Your task to perform on an android device: Open Google Maps and go to "Timeline" Image 0: 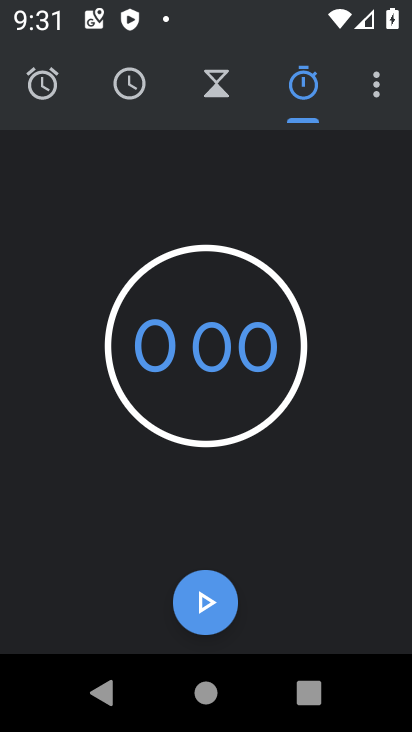
Step 0: press home button
Your task to perform on an android device: Open Google Maps and go to "Timeline" Image 1: 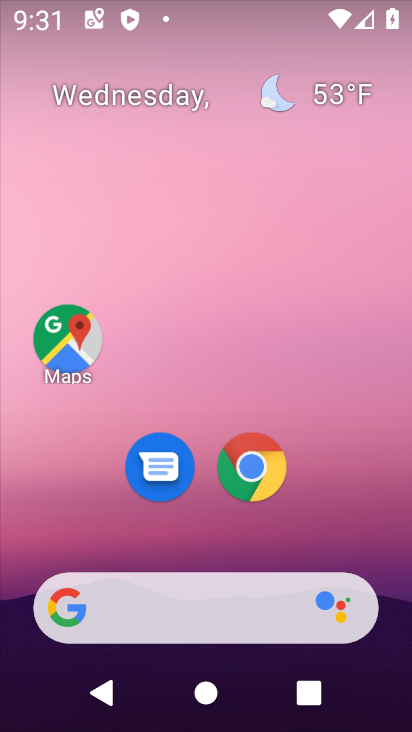
Step 1: click (68, 347)
Your task to perform on an android device: Open Google Maps and go to "Timeline" Image 2: 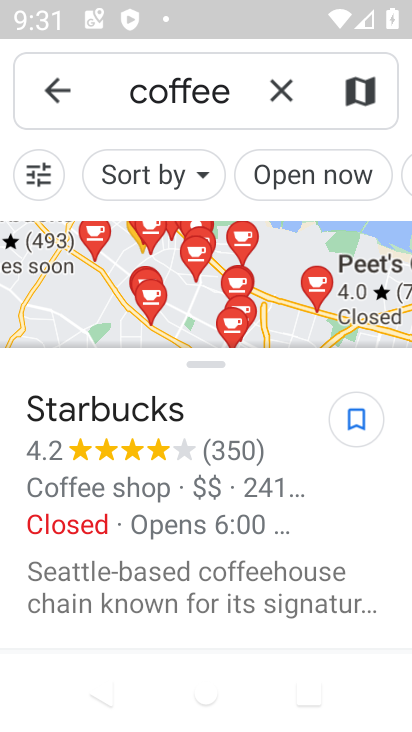
Step 2: click (51, 89)
Your task to perform on an android device: Open Google Maps and go to "Timeline" Image 3: 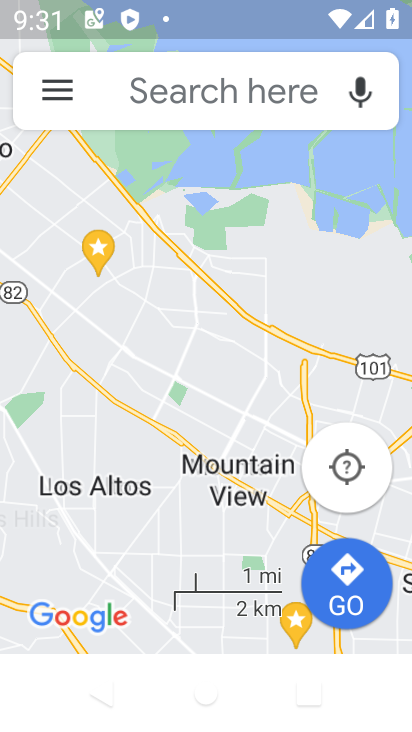
Step 3: click (51, 89)
Your task to perform on an android device: Open Google Maps and go to "Timeline" Image 4: 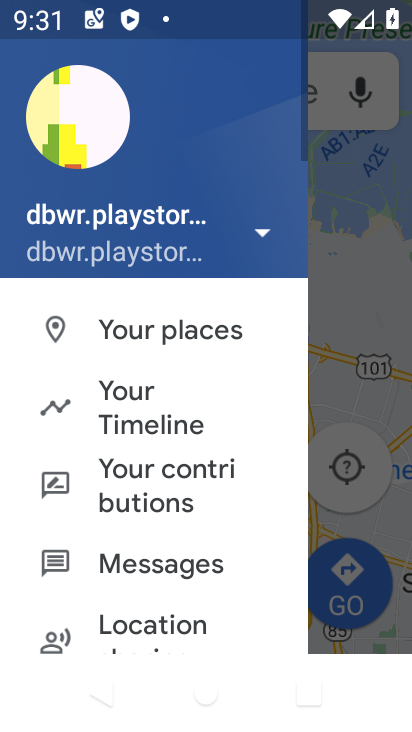
Step 4: click (142, 416)
Your task to perform on an android device: Open Google Maps and go to "Timeline" Image 5: 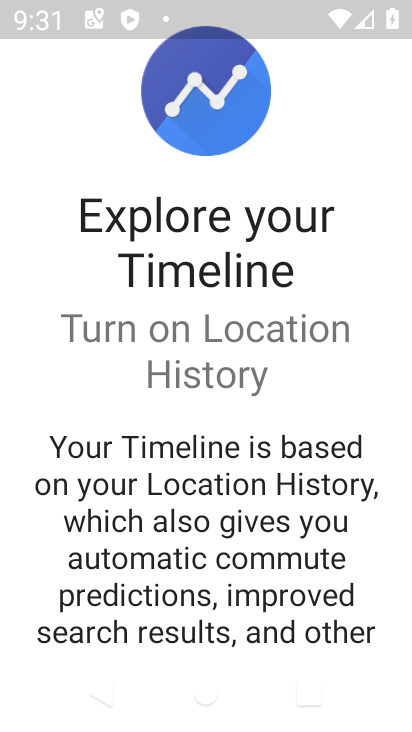
Step 5: drag from (221, 615) to (239, 74)
Your task to perform on an android device: Open Google Maps and go to "Timeline" Image 6: 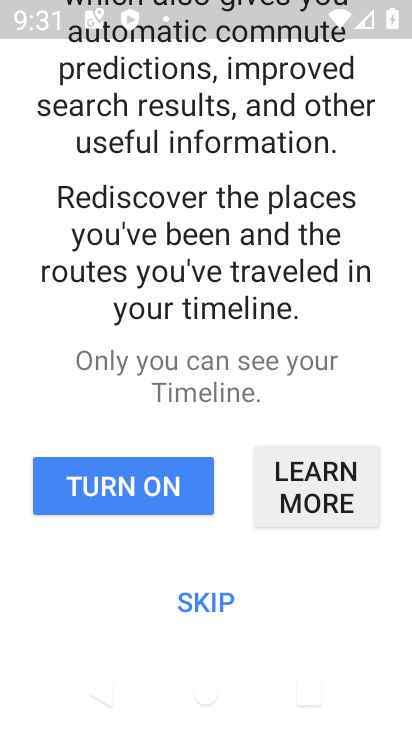
Step 6: click (202, 611)
Your task to perform on an android device: Open Google Maps and go to "Timeline" Image 7: 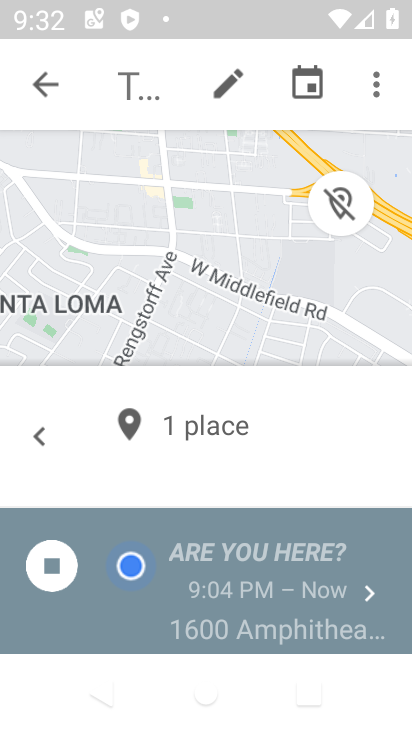
Step 7: task complete